Your task to perform on an android device: Go to internet settings Image 0: 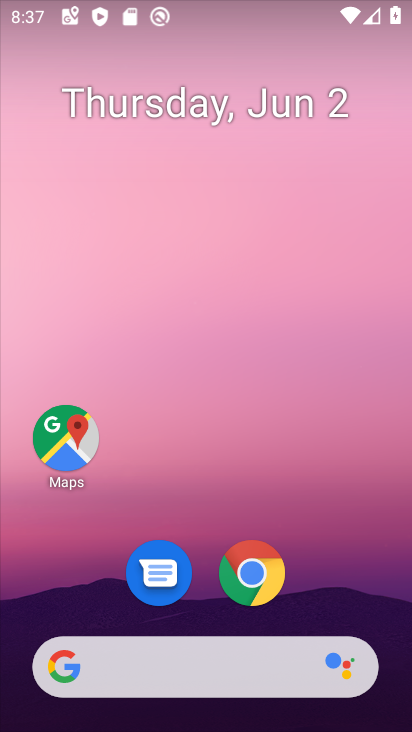
Step 0: press home button
Your task to perform on an android device: Go to internet settings Image 1: 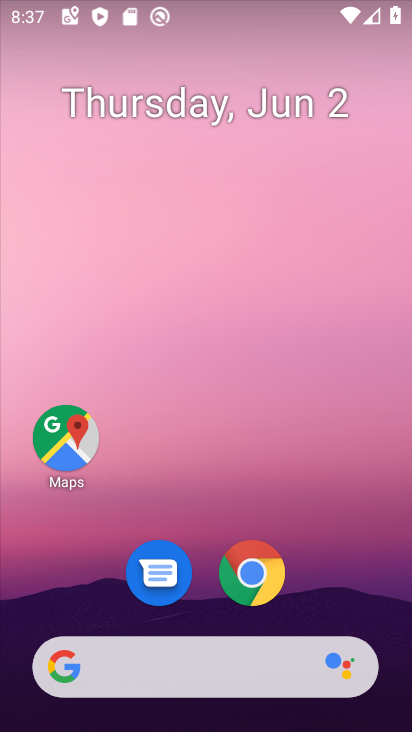
Step 1: drag from (355, 589) to (233, 66)
Your task to perform on an android device: Go to internet settings Image 2: 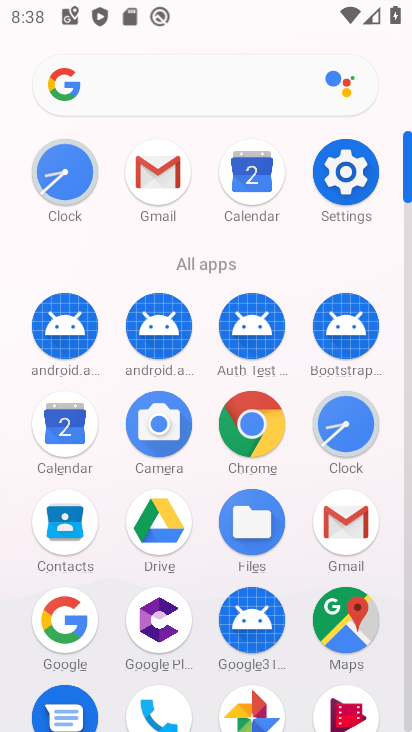
Step 2: click (353, 170)
Your task to perform on an android device: Go to internet settings Image 3: 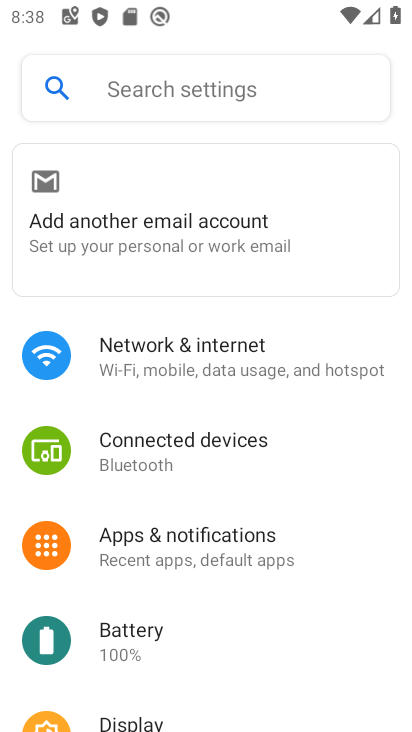
Step 3: click (122, 364)
Your task to perform on an android device: Go to internet settings Image 4: 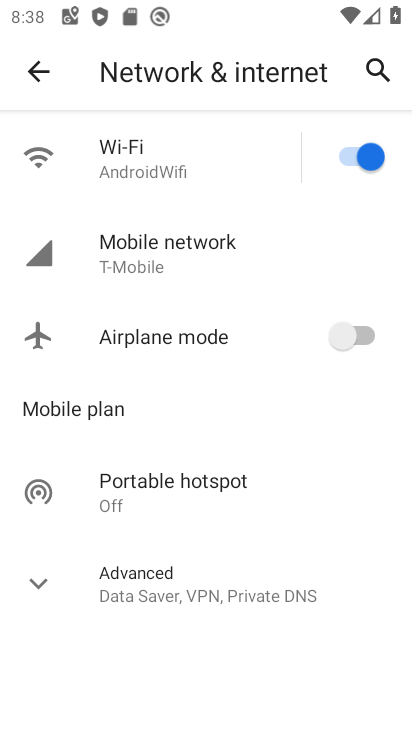
Step 4: task complete